Your task to perform on an android device: Open the Play Movies app and select the watchlist tab. Image 0: 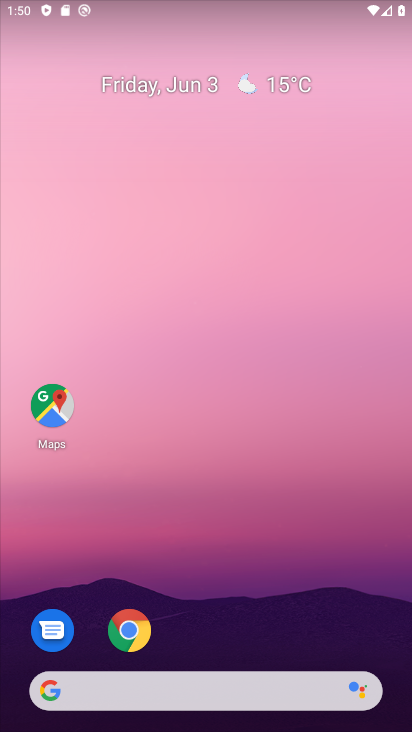
Step 0: drag from (350, 582) to (234, 85)
Your task to perform on an android device: Open the Play Movies app and select the watchlist tab. Image 1: 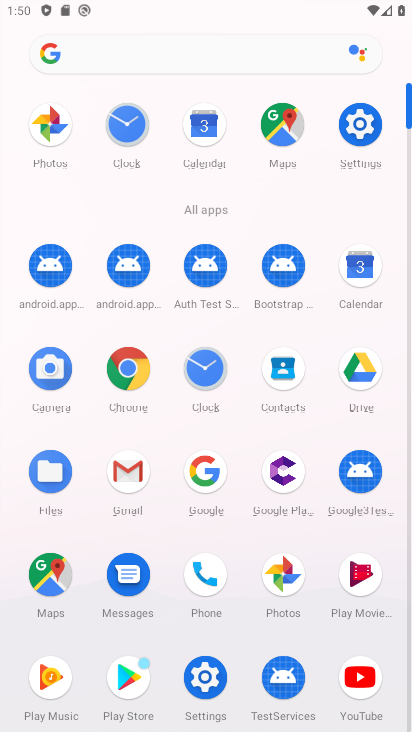
Step 1: click (358, 592)
Your task to perform on an android device: Open the Play Movies app and select the watchlist tab. Image 2: 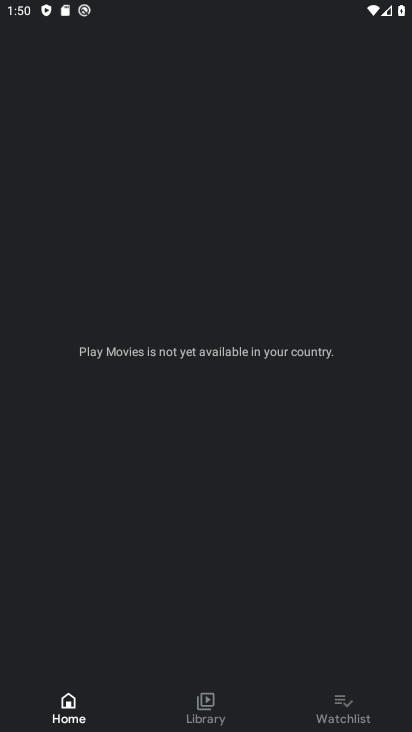
Step 2: click (363, 695)
Your task to perform on an android device: Open the Play Movies app and select the watchlist tab. Image 3: 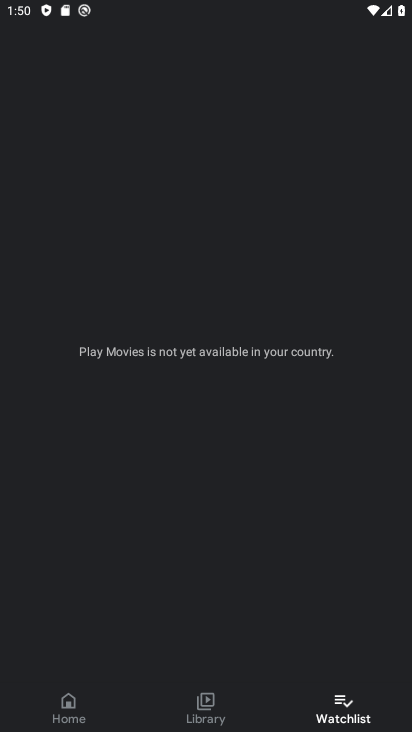
Step 3: task complete